Your task to perform on an android device: Open my contact list Image 0: 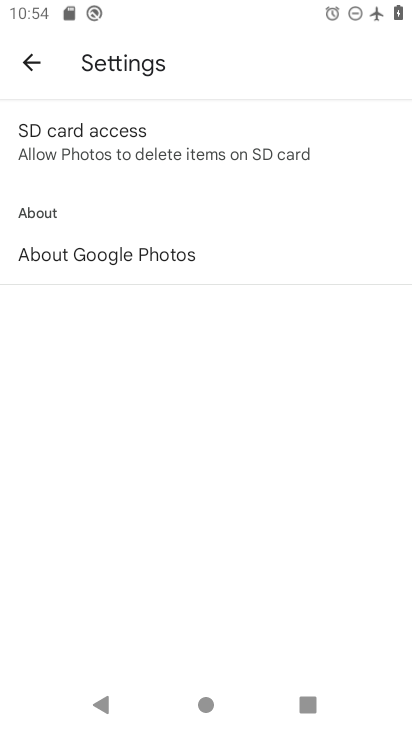
Step 0: press home button
Your task to perform on an android device: Open my contact list Image 1: 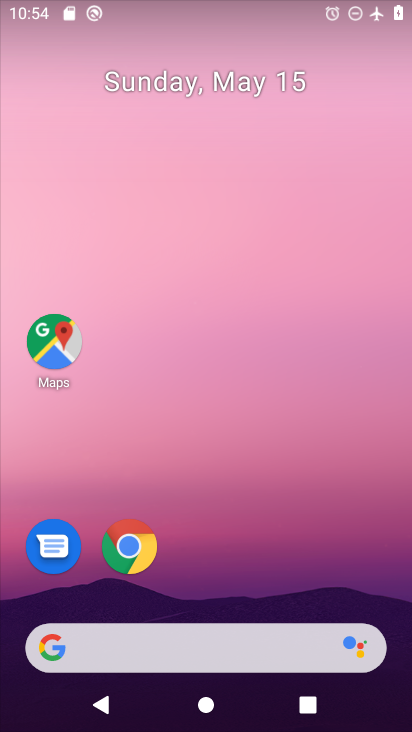
Step 1: drag from (311, 539) to (285, 144)
Your task to perform on an android device: Open my contact list Image 2: 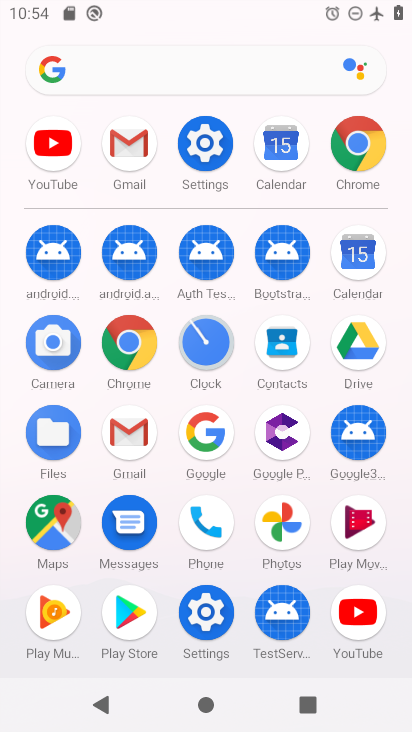
Step 2: click (285, 345)
Your task to perform on an android device: Open my contact list Image 3: 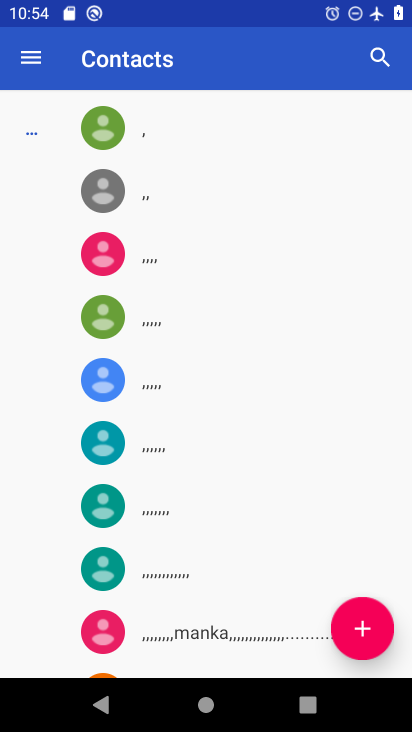
Step 3: task complete